Your task to perform on an android device: see sites visited before in the chrome app Image 0: 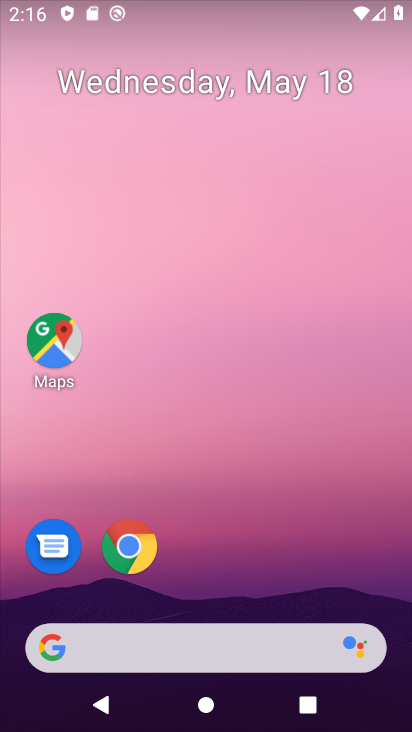
Step 0: click (129, 545)
Your task to perform on an android device: see sites visited before in the chrome app Image 1: 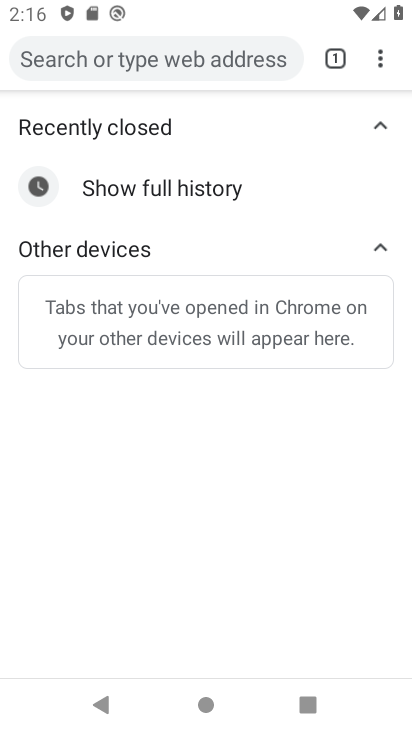
Step 1: click (380, 64)
Your task to perform on an android device: see sites visited before in the chrome app Image 2: 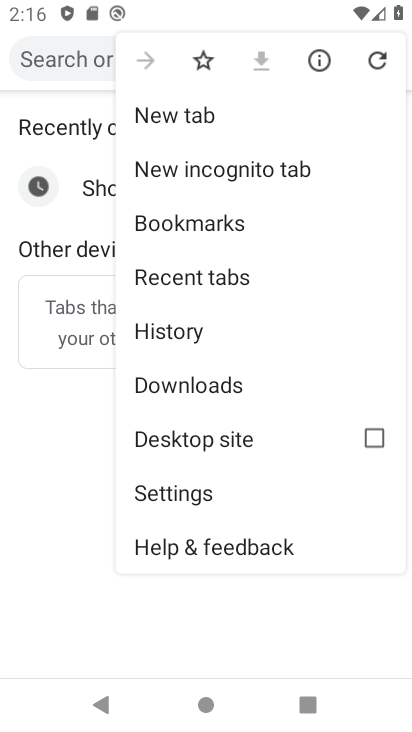
Step 2: click (174, 329)
Your task to perform on an android device: see sites visited before in the chrome app Image 3: 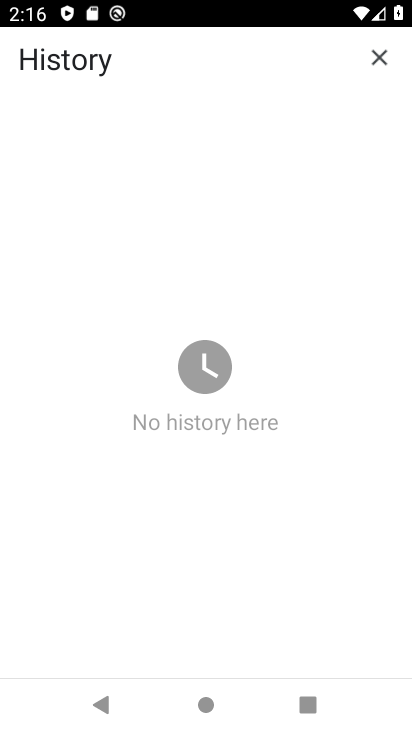
Step 3: task complete